Your task to perform on an android device: Open Chrome and go to settings Image 0: 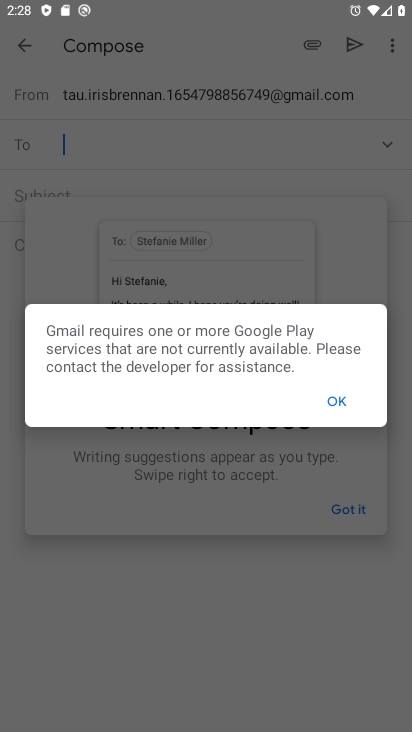
Step 0: press home button
Your task to perform on an android device: Open Chrome and go to settings Image 1: 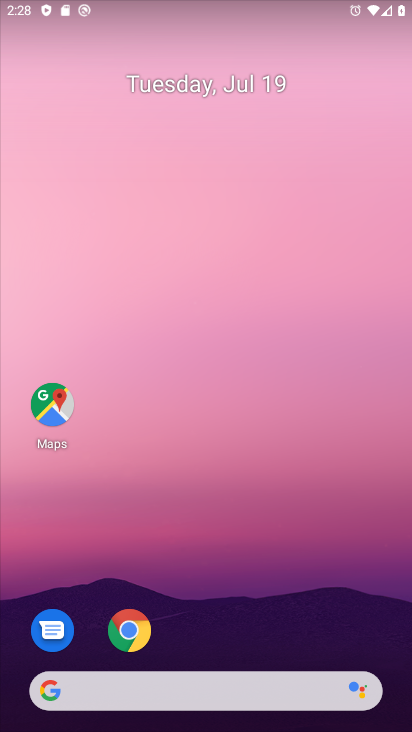
Step 1: click (127, 626)
Your task to perform on an android device: Open Chrome and go to settings Image 2: 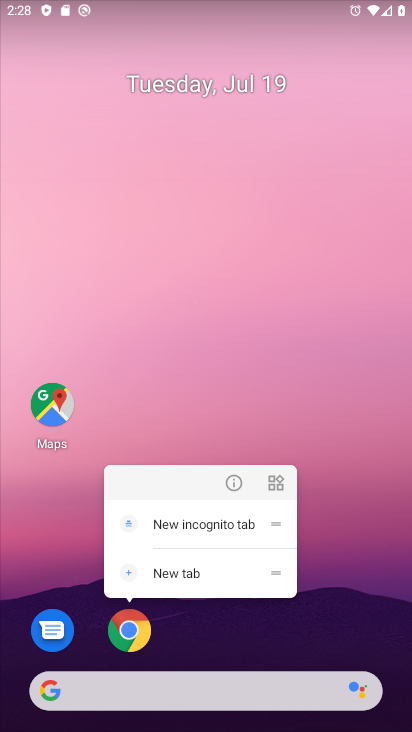
Step 2: click (127, 626)
Your task to perform on an android device: Open Chrome and go to settings Image 3: 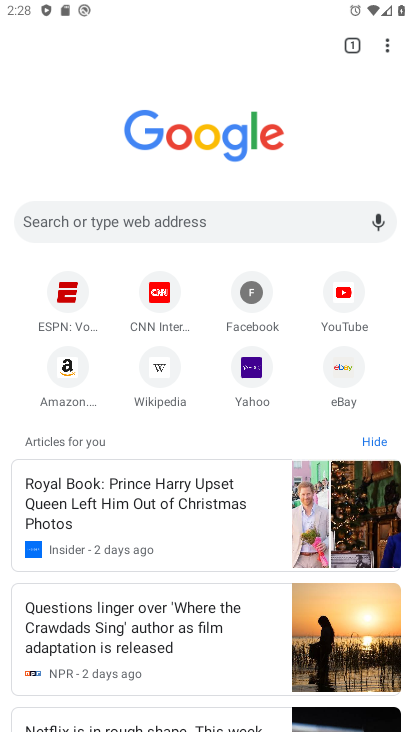
Step 3: click (383, 43)
Your task to perform on an android device: Open Chrome and go to settings Image 4: 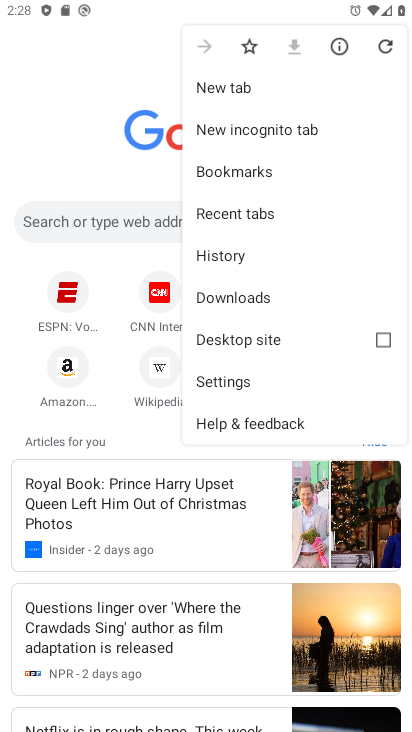
Step 4: click (246, 378)
Your task to perform on an android device: Open Chrome and go to settings Image 5: 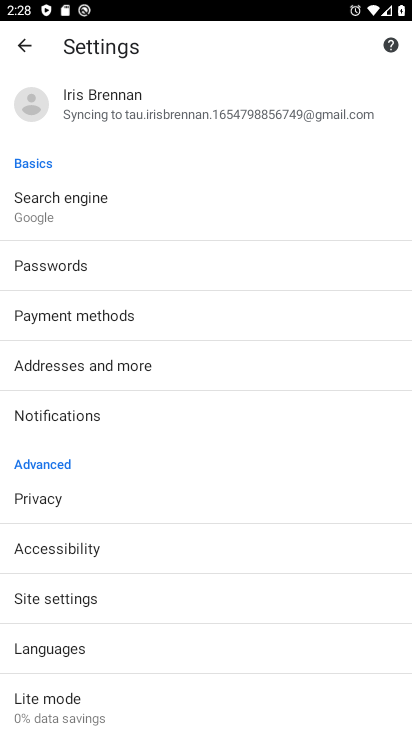
Step 5: task complete